Your task to perform on an android device: turn off javascript in the chrome app Image 0: 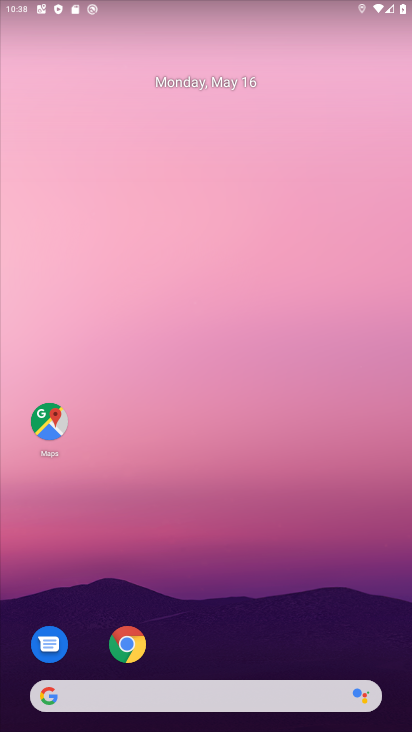
Step 0: click (126, 641)
Your task to perform on an android device: turn off javascript in the chrome app Image 1: 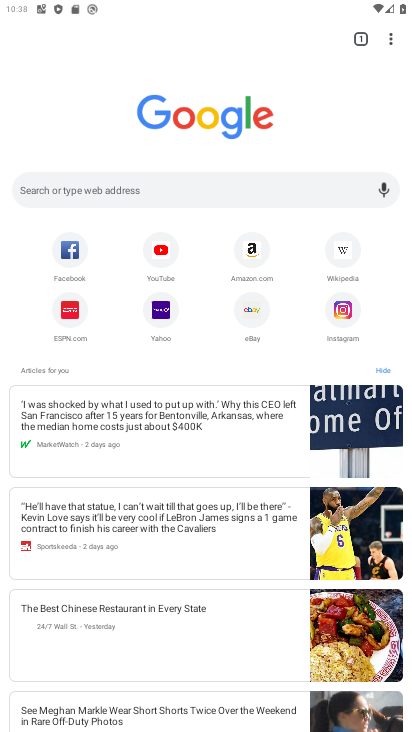
Step 1: click (391, 42)
Your task to perform on an android device: turn off javascript in the chrome app Image 2: 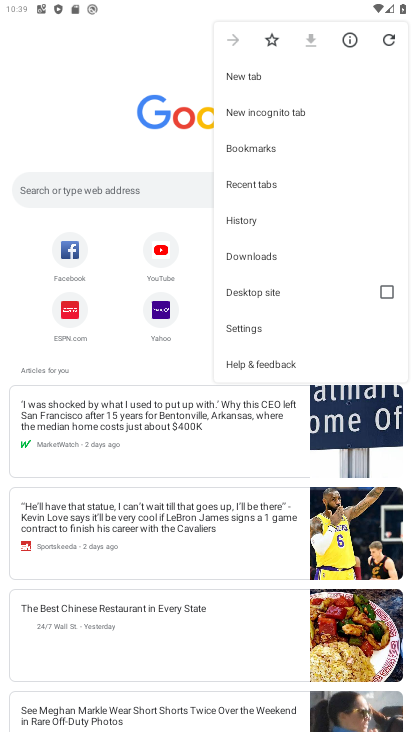
Step 2: click (241, 323)
Your task to perform on an android device: turn off javascript in the chrome app Image 3: 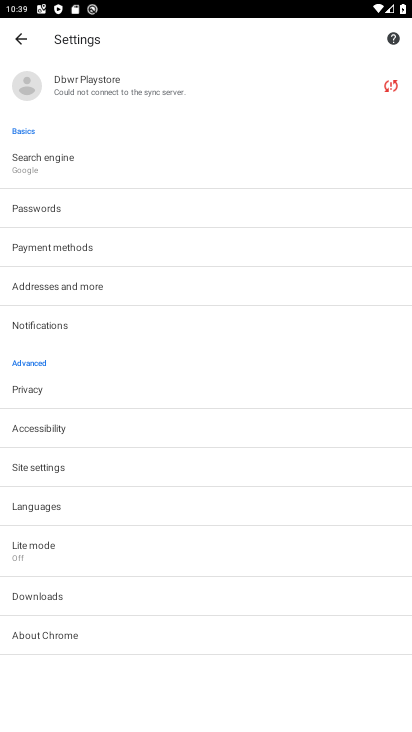
Step 3: click (37, 466)
Your task to perform on an android device: turn off javascript in the chrome app Image 4: 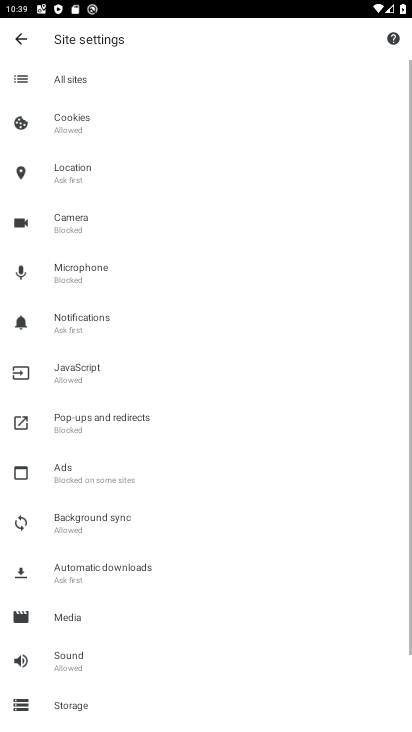
Step 4: click (74, 374)
Your task to perform on an android device: turn off javascript in the chrome app Image 5: 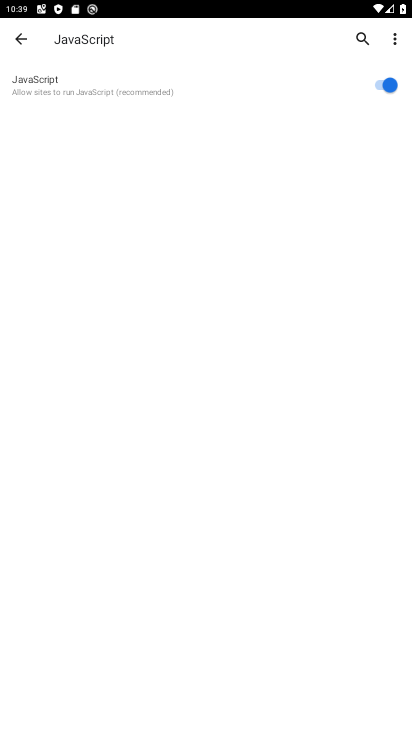
Step 5: click (378, 81)
Your task to perform on an android device: turn off javascript in the chrome app Image 6: 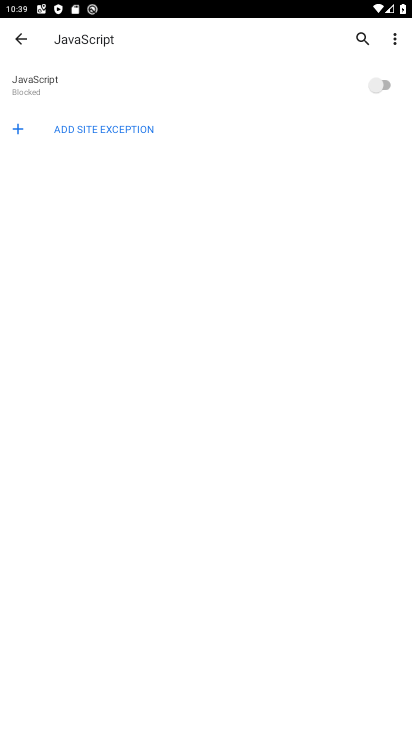
Step 6: task complete